Your task to perform on an android device: Open wifi settings Image 0: 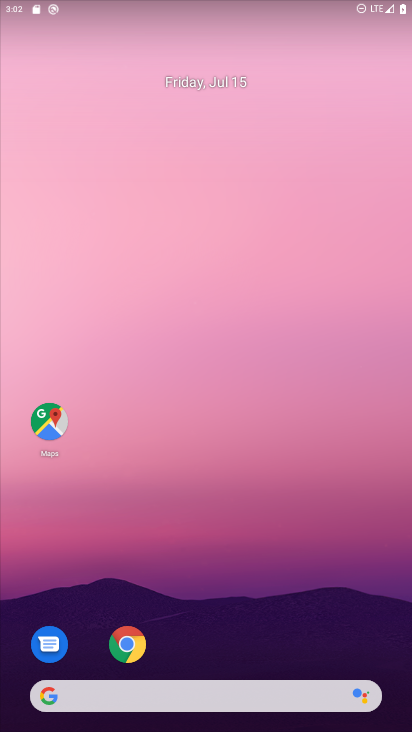
Step 0: drag from (181, 0) to (161, 502)
Your task to perform on an android device: Open wifi settings Image 1: 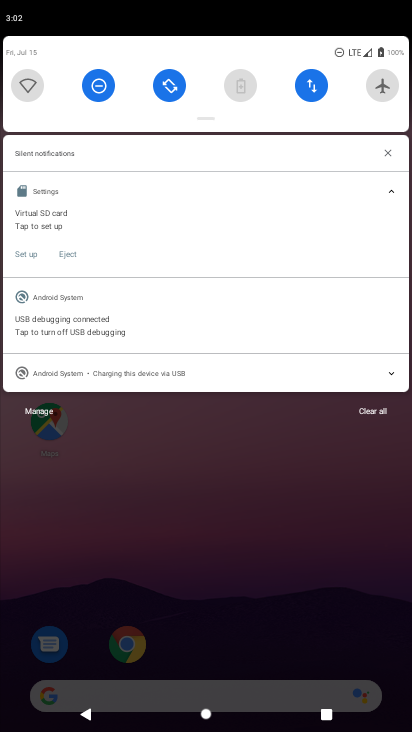
Step 1: click (27, 87)
Your task to perform on an android device: Open wifi settings Image 2: 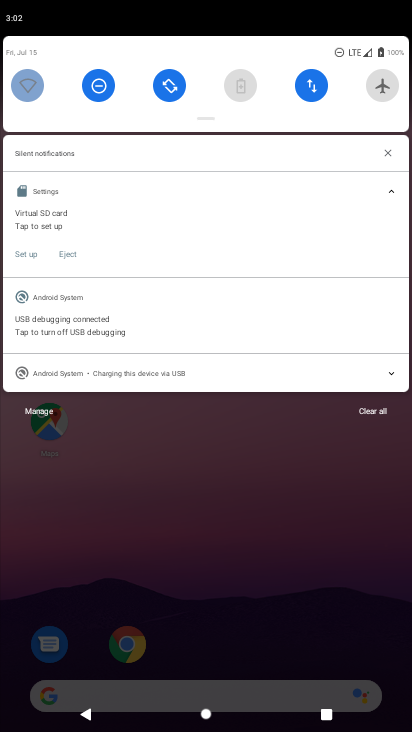
Step 2: click (27, 87)
Your task to perform on an android device: Open wifi settings Image 3: 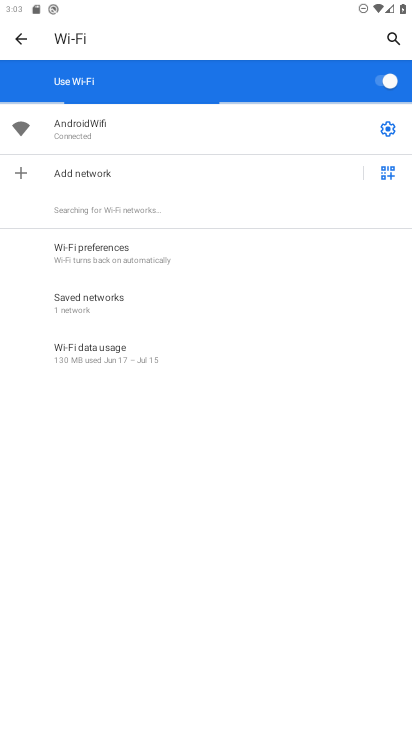
Step 3: click (385, 125)
Your task to perform on an android device: Open wifi settings Image 4: 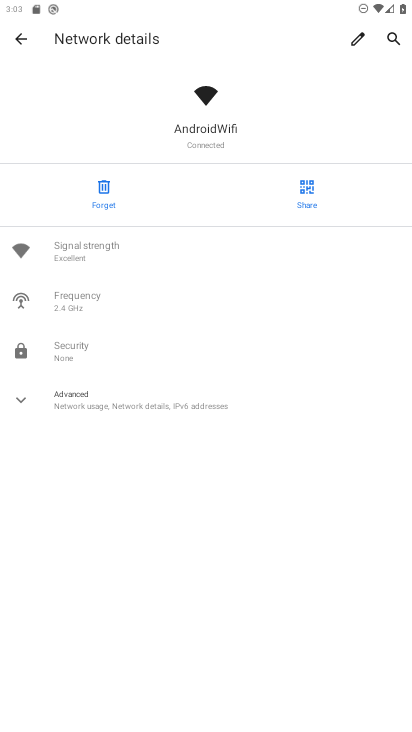
Step 4: task complete